Your task to perform on an android device: Go to Amazon Image 0: 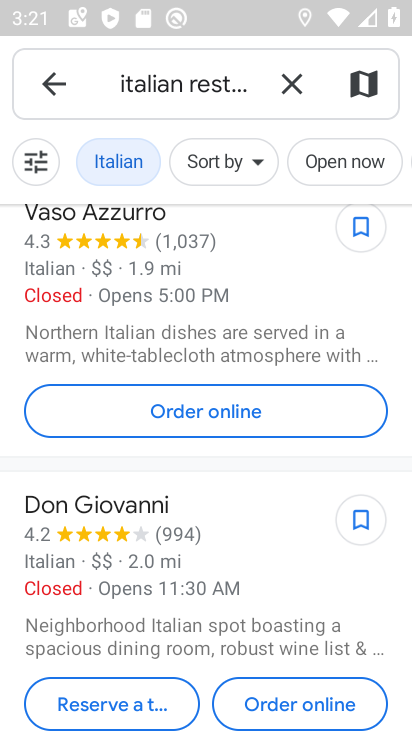
Step 0: press home button
Your task to perform on an android device: Go to Amazon Image 1: 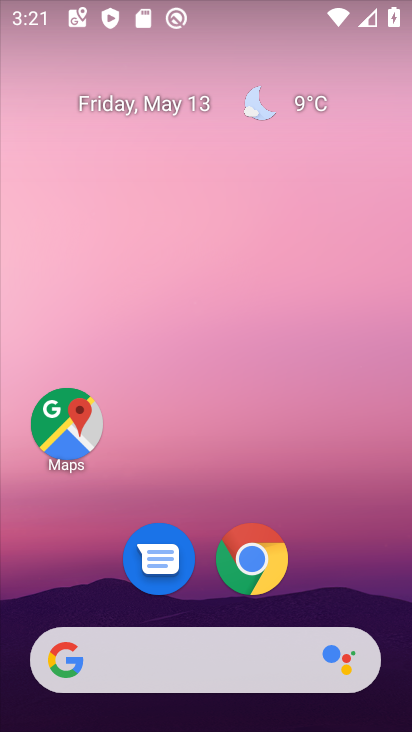
Step 1: click (253, 563)
Your task to perform on an android device: Go to Amazon Image 2: 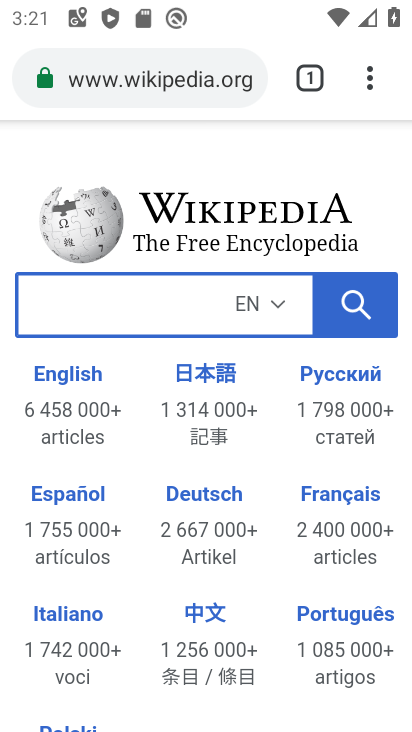
Step 2: click (164, 66)
Your task to perform on an android device: Go to Amazon Image 3: 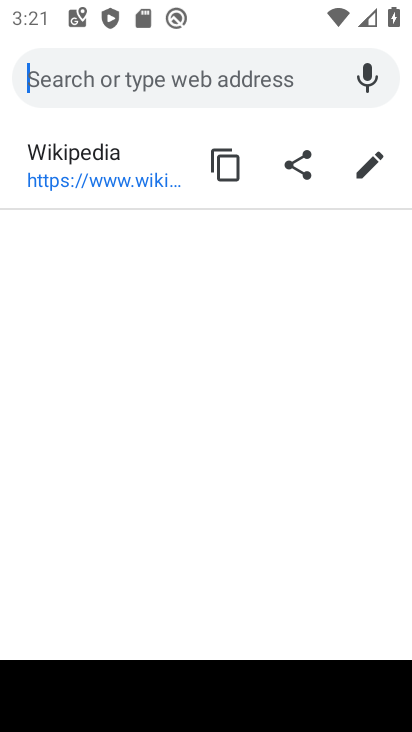
Step 3: type "amazon"
Your task to perform on an android device: Go to Amazon Image 4: 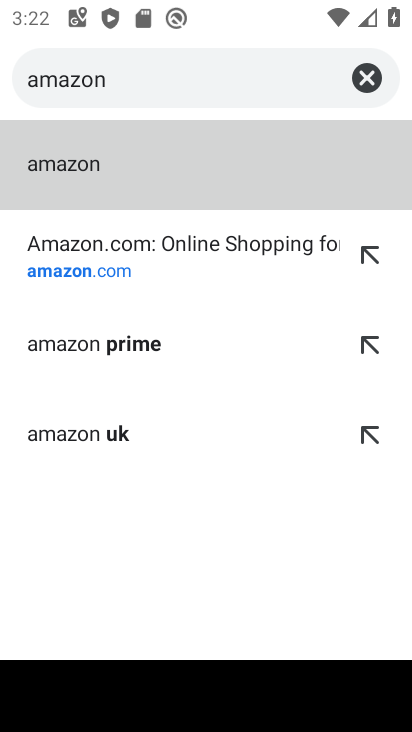
Step 4: click (128, 154)
Your task to perform on an android device: Go to Amazon Image 5: 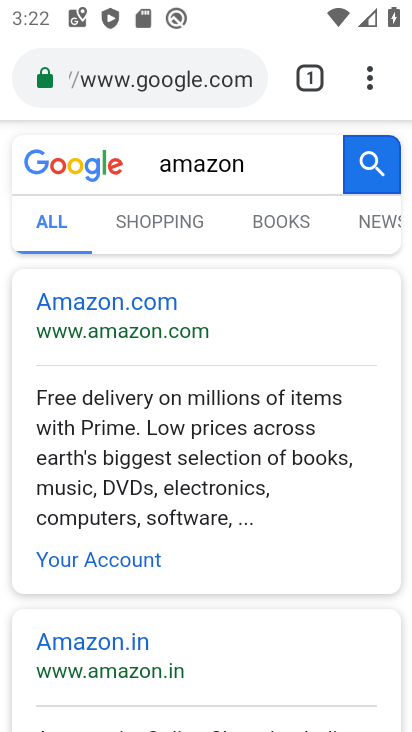
Step 5: click (69, 311)
Your task to perform on an android device: Go to Amazon Image 6: 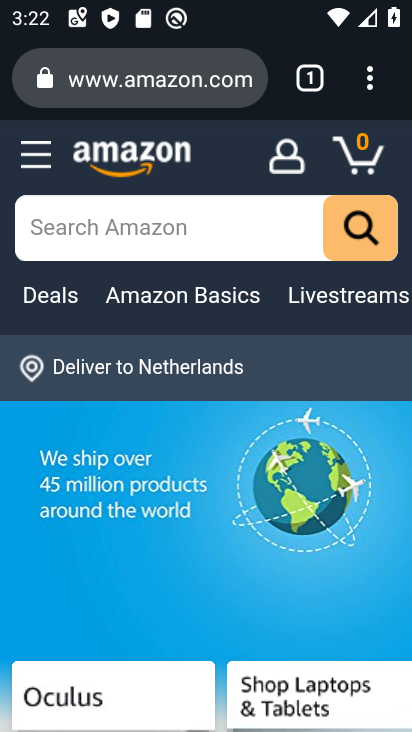
Step 6: task complete